Your task to perform on an android device: Go to ESPN.com Image 0: 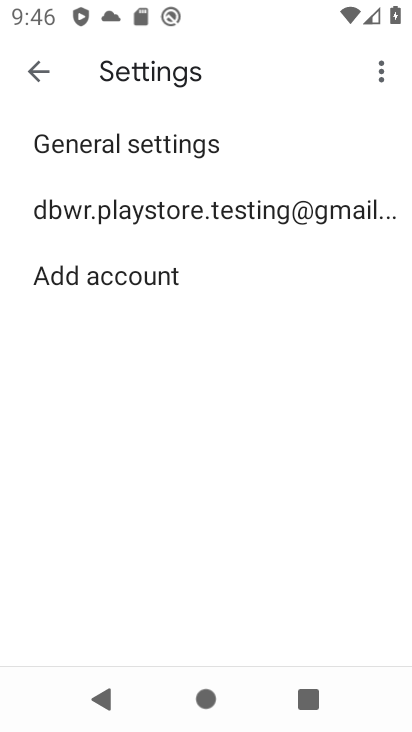
Step 0: press home button
Your task to perform on an android device: Go to ESPN.com Image 1: 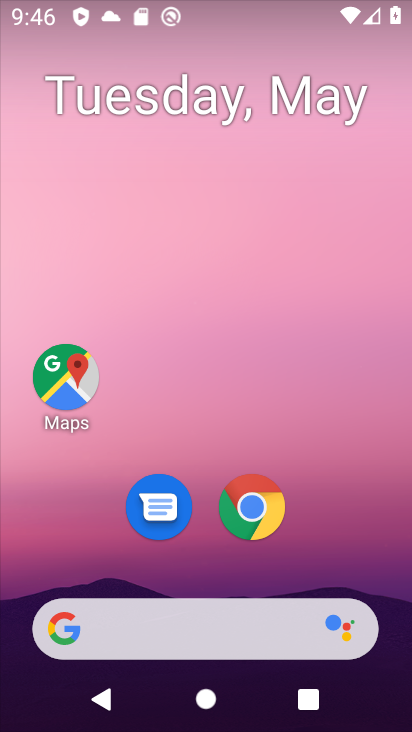
Step 1: click (238, 521)
Your task to perform on an android device: Go to ESPN.com Image 2: 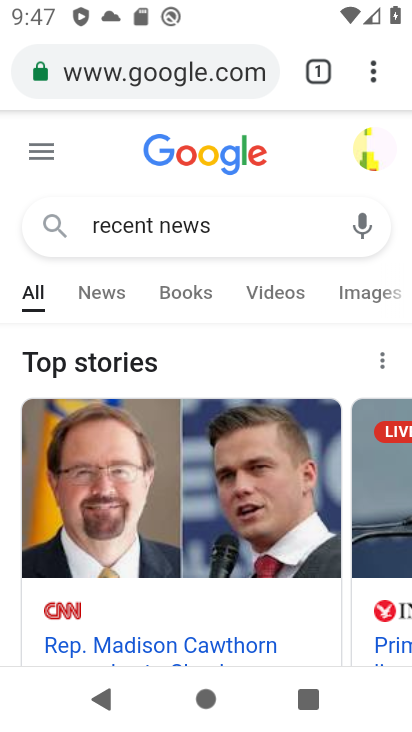
Step 2: click (238, 521)
Your task to perform on an android device: Go to ESPN.com Image 3: 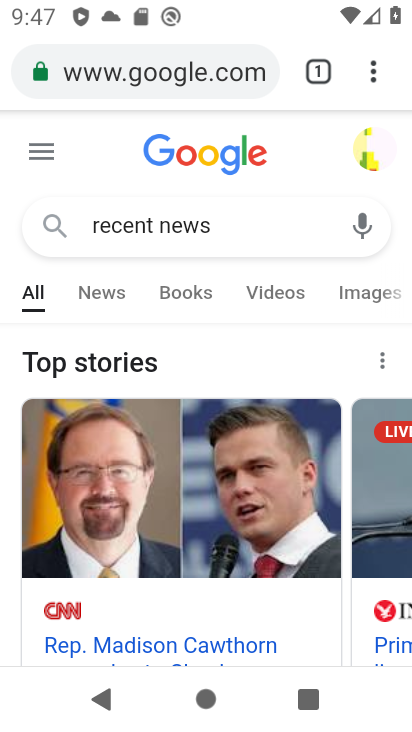
Step 3: click (186, 82)
Your task to perform on an android device: Go to ESPN.com Image 4: 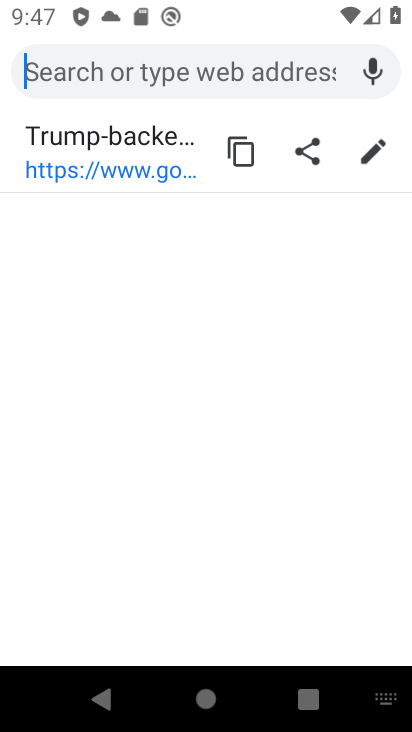
Step 4: type "ESPN.com"
Your task to perform on an android device: Go to ESPN.com Image 5: 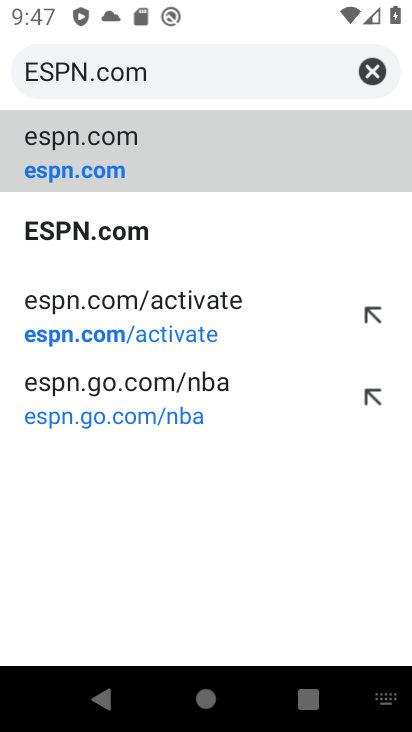
Step 5: click (82, 175)
Your task to perform on an android device: Go to ESPN.com Image 6: 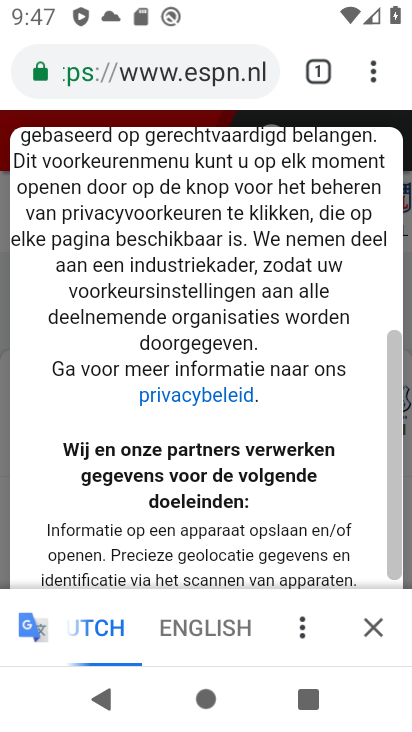
Step 6: task complete